Your task to perform on an android device: turn on wifi Image 0: 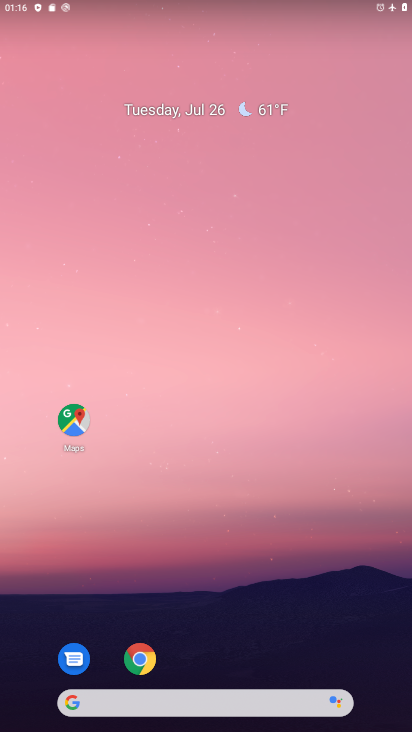
Step 0: drag from (257, 662) to (257, 109)
Your task to perform on an android device: turn on wifi Image 1: 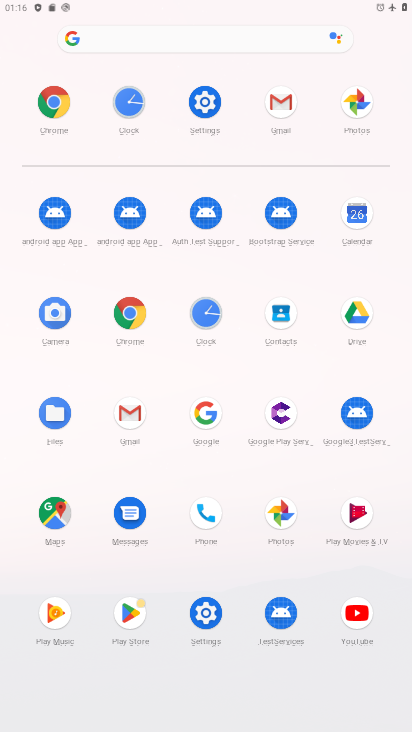
Step 1: click (214, 101)
Your task to perform on an android device: turn on wifi Image 2: 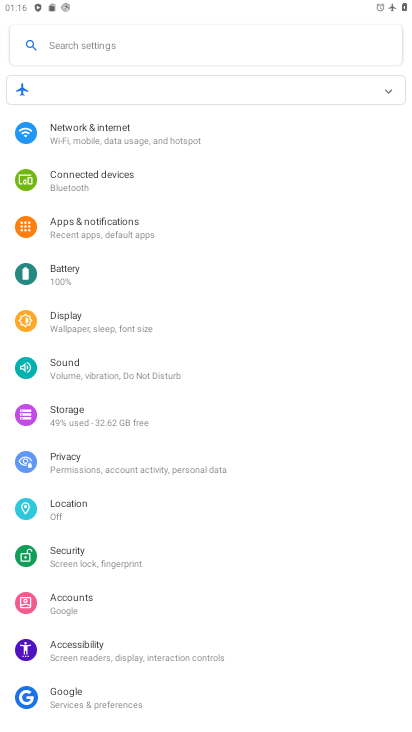
Step 2: click (118, 137)
Your task to perform on an android device: turn on wifi Image 3: 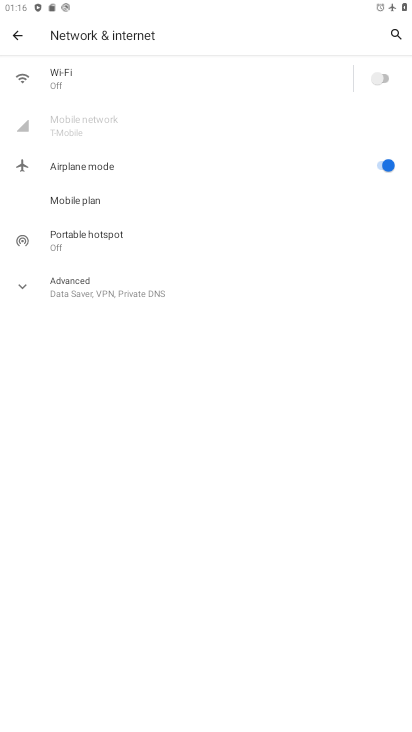
Step 3: click (188, 80)
Your task to perform on an android device: turn on wifi Image 4: 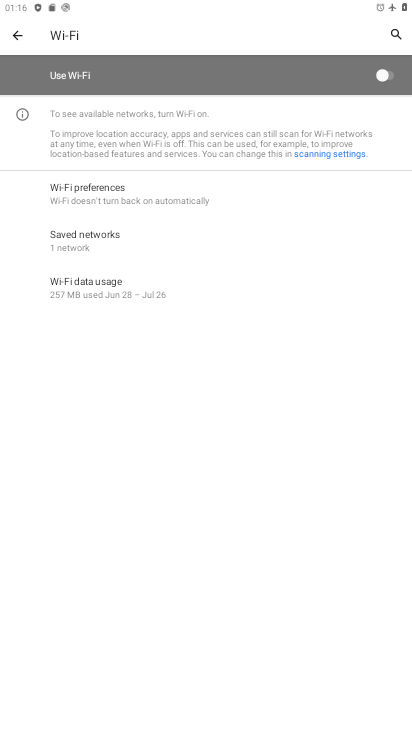
Step 4: click (367, 68)
Your task to perform on an android device: turn on wifi Image 5: 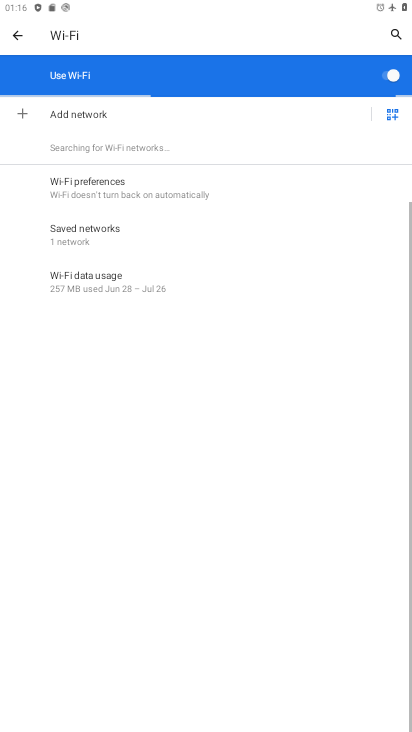
Step 5: task complete